Your task to perform on an android device: Toggle the flashlight Image 0: 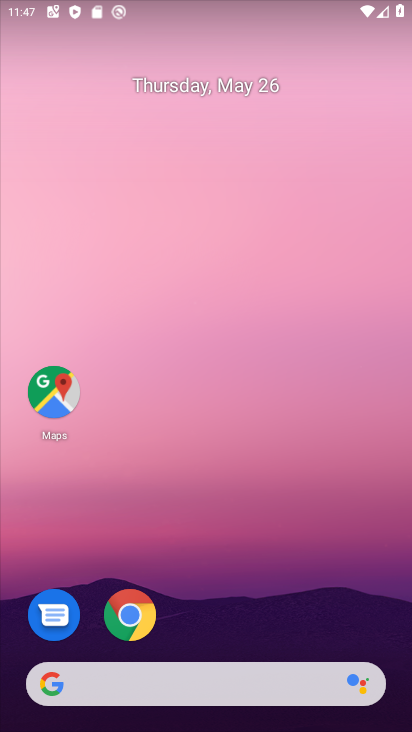
Step 0: drag from (195, 3) to (275, 693)
Your task to perform on an android device: Toggle the flashlight Image 1: 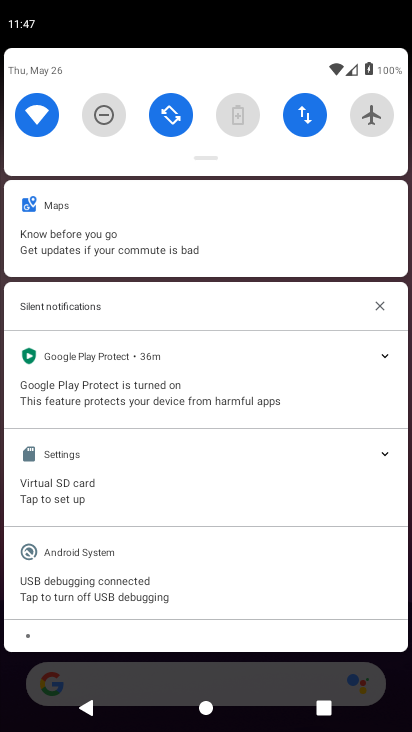
Step 1: drag from (208, 138) to (256, 560)
Your task to perform on an android device: Toggle the flashlight Image 2: 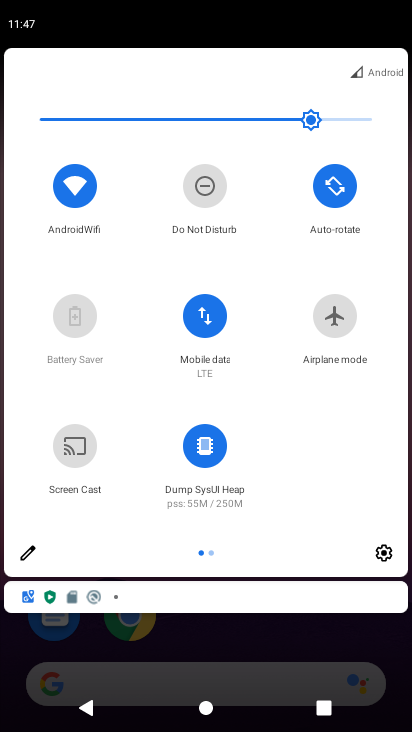
Step 2: click (26, 549)
Your task to perform on an android device: Toggle the flashlight Image 3: 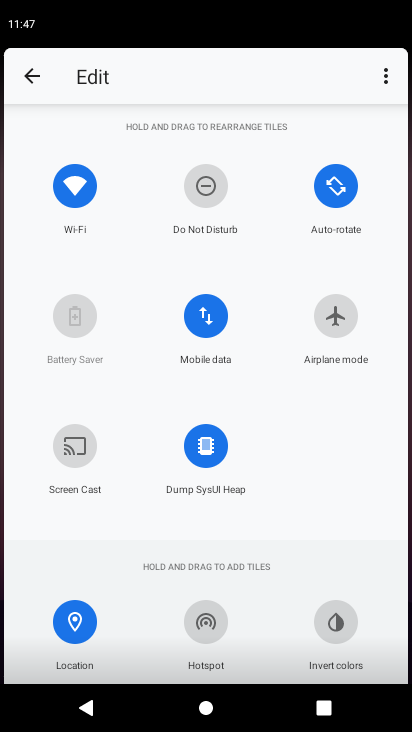
Step 3: task complete